Your task to perform on an android device: allow cookies in the chrome app Image 0: 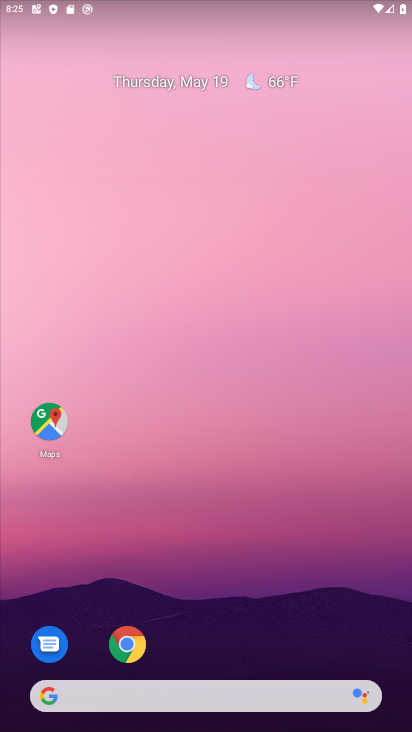
Step 0: drag from (331, 496) to (319, 143)
Your task to perform on an android device: allow cookies in the chrome app Image 1: 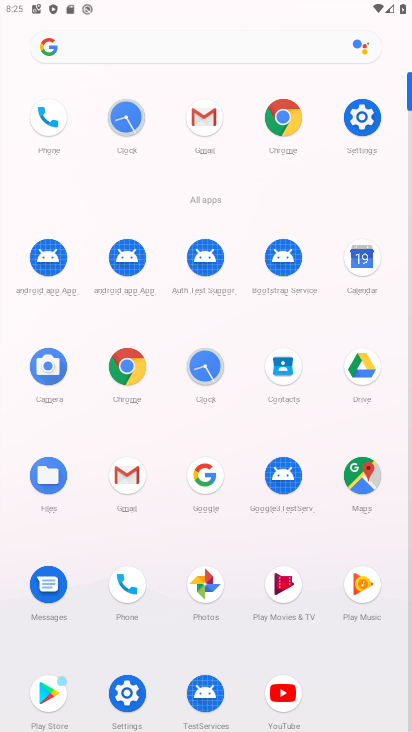
Step 1: click (144, 365)
Your task to perform on an android device: allow cookies in the chrome app Image 2: 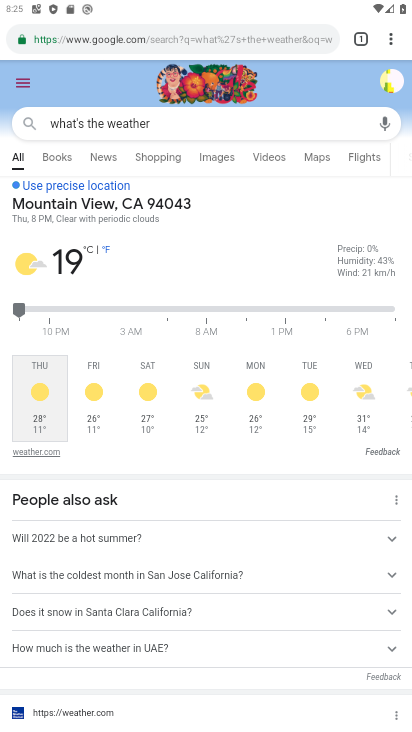
Step 2: drag from (390, 45) to (280, 436)
Your task to perform on an android device: allow cookies in the chrome app Image 3: 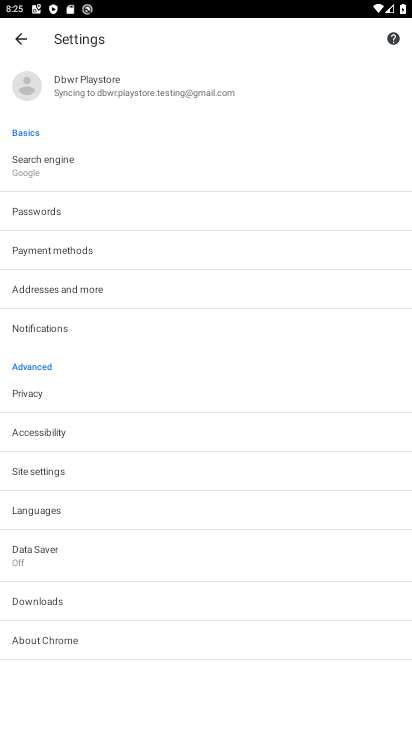
Step 3: click (112, 471)
Your task to perform on an android device: allow cookies in the chrome app Image 4: 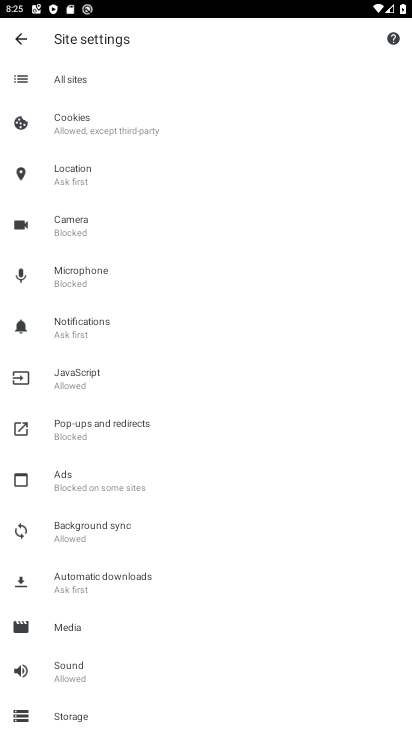
Step 4: click (118, 130)
Your task to perform on an android device: allow cookies in the chrome app Image 5: 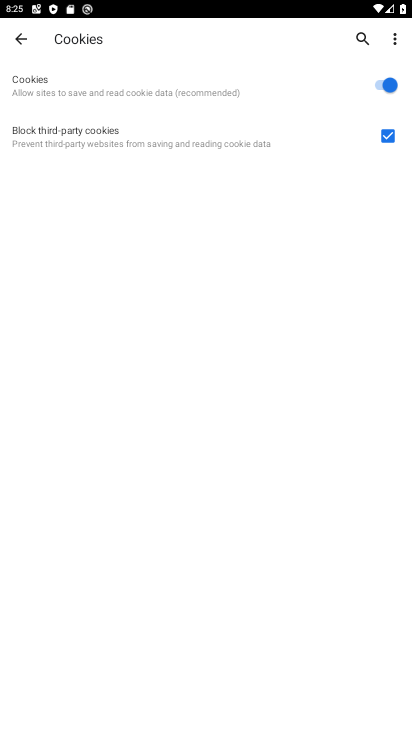
Step 5: task complete